Your task to perform on an android device: turn on the 24-hour format for clock Image 0: 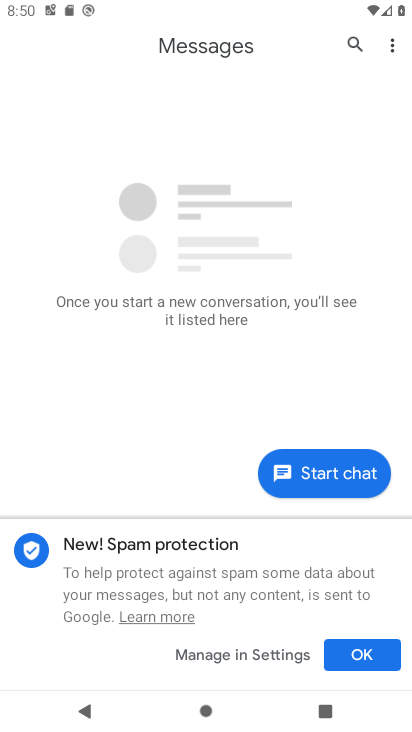
Step 0: press home button
Your task to perform on an android device: turn on the 24-hour format for clock Image 1: 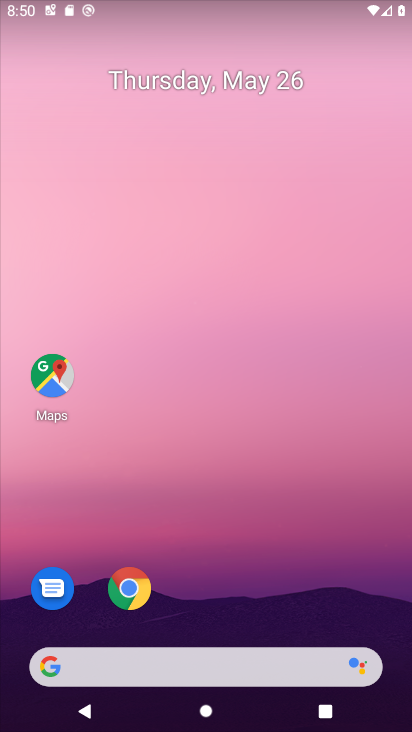
Step 1: drag from (279, 586) to (245, 23)
Your task to perform on an android device: turn on the 24-hour format for clock Image 2: 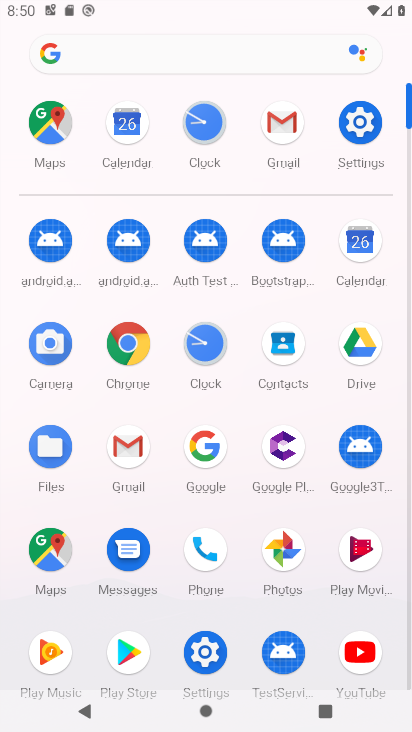
Step 2: click (197, 349)
Your task to perform on an android device: turn on the 24-hour format for clock Image 3: 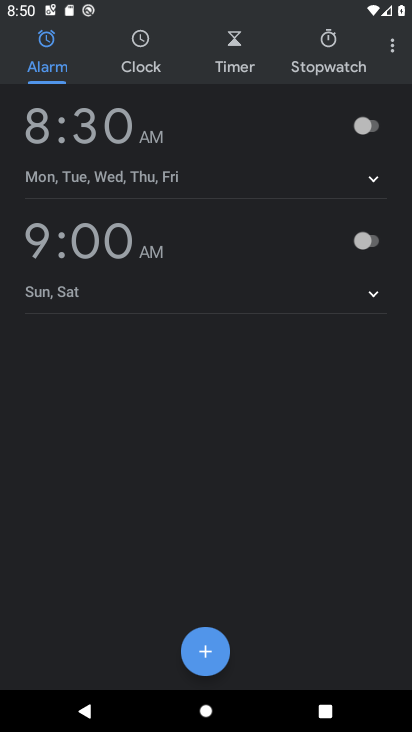
Step 3: click (393, 30)
Your task to perform on an android device: turn on the 24-hour format for clock Image 4: 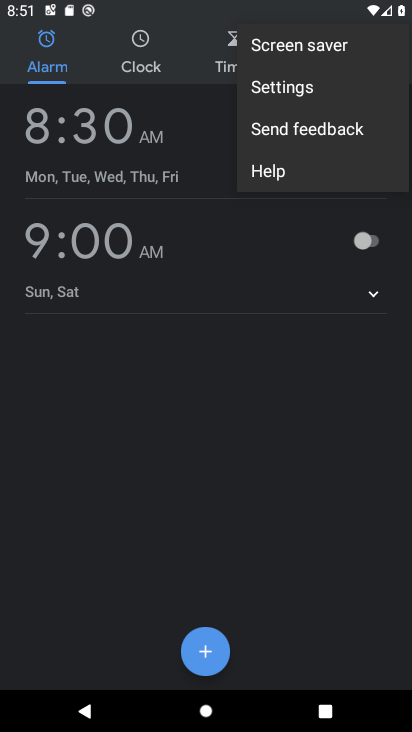
Step 4: click (316, 94)
Your task to perform on an android device: turn on the 24-hour format for clock Image 5: 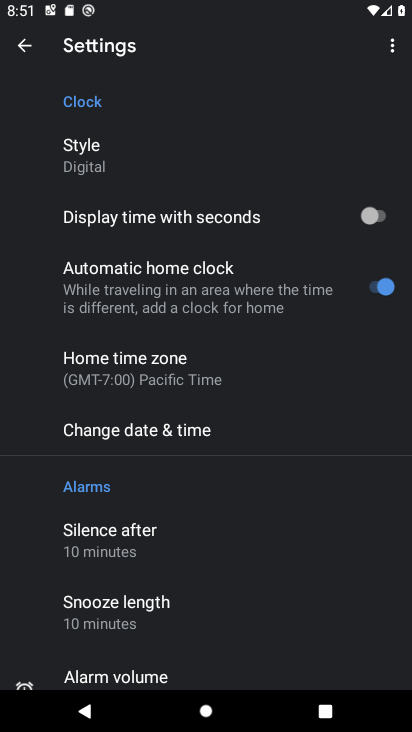
Step 5: click (136, 420)
Your task to perform on an android device: turn on the 24-hour format for clock Image 6: 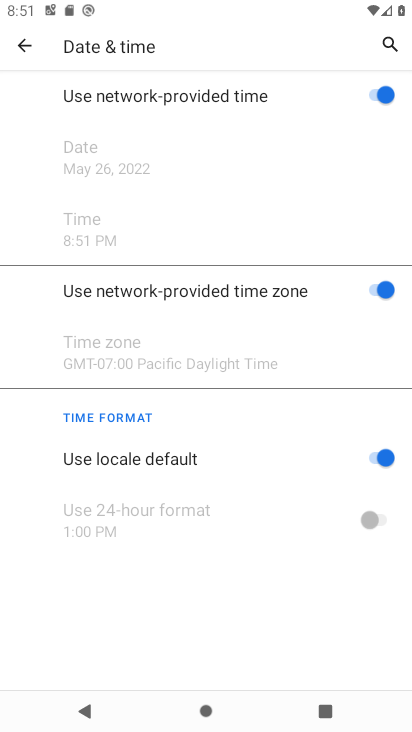
Step 6: click (386, 461)
Your task to perform on an android device: turn on the 24-hour format for clock Image 7: 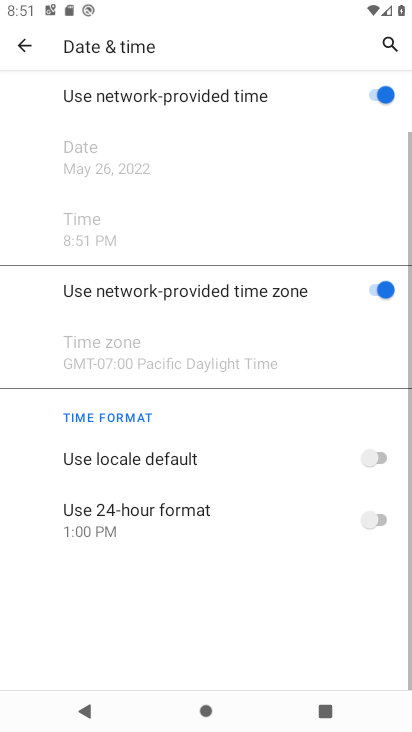
Step 7: click (374, 515)
Your task to perform on an android device: turn on the 24-hour format for clock Image 8: 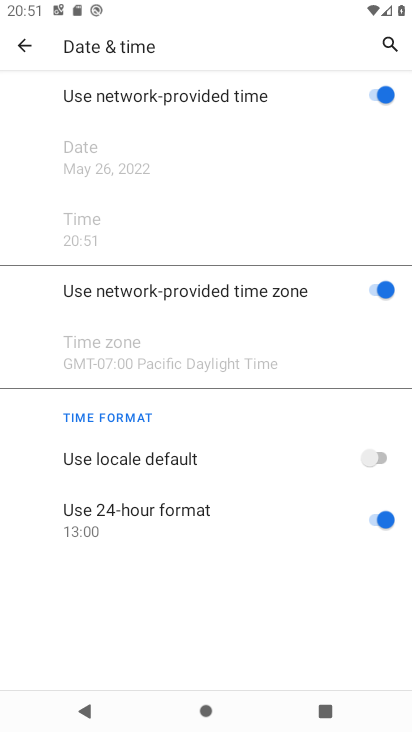
Step 8: task complete